Your task to perform on an android device: uninstall "Gmail" Image 0: 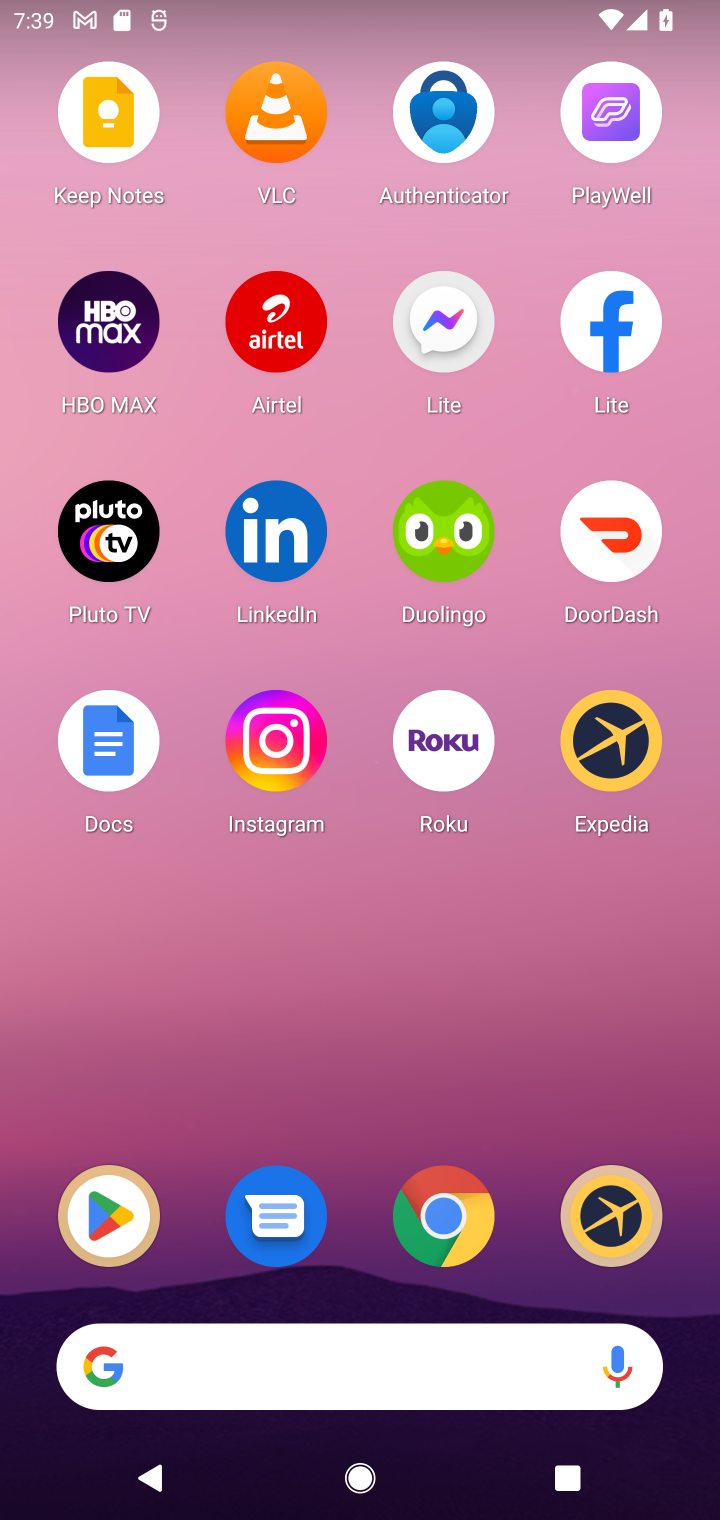
Step 0: press home button
Your task to perform on an android device: uninstall "Gmail" Image 1: 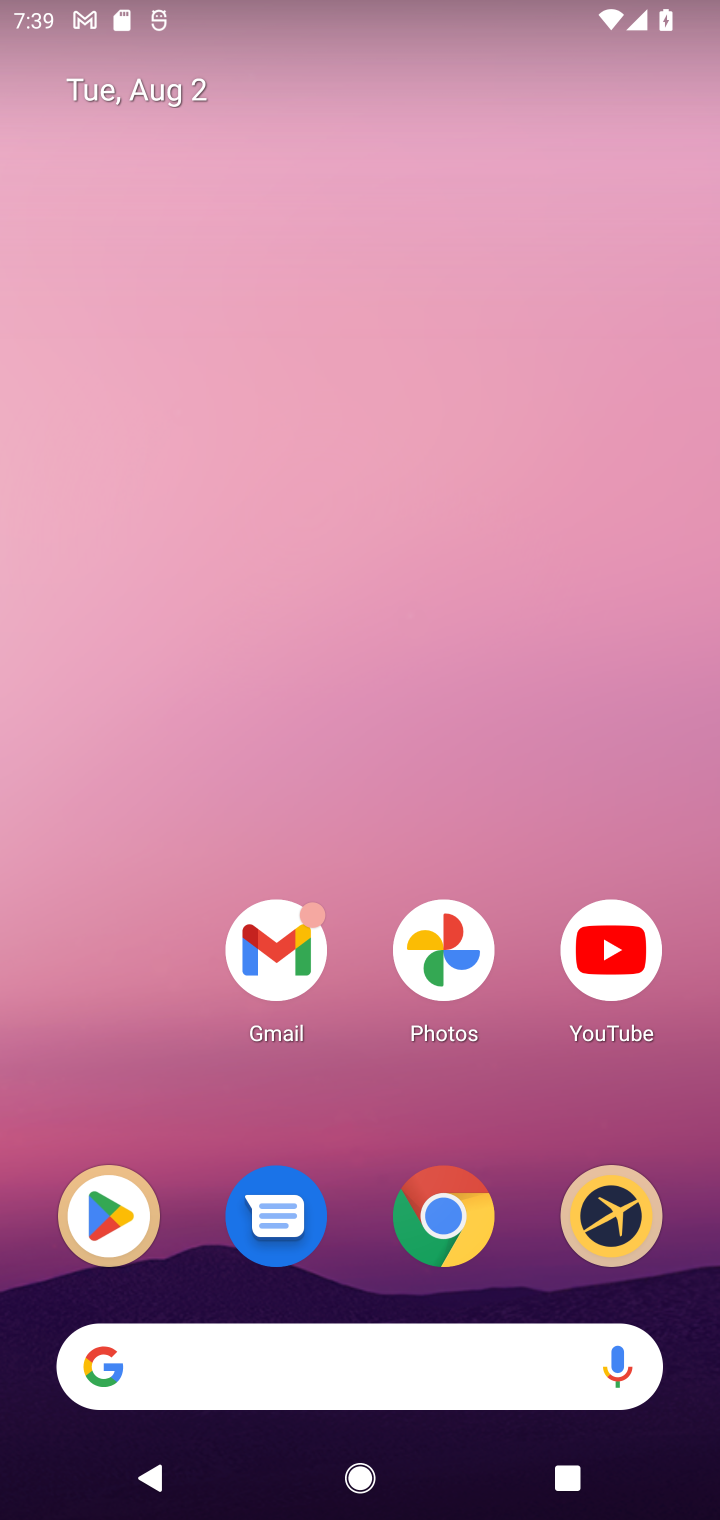
Step 1: click (93, 1222)
Your task to perform on an android device: uninstall "Gmail" Image 2: 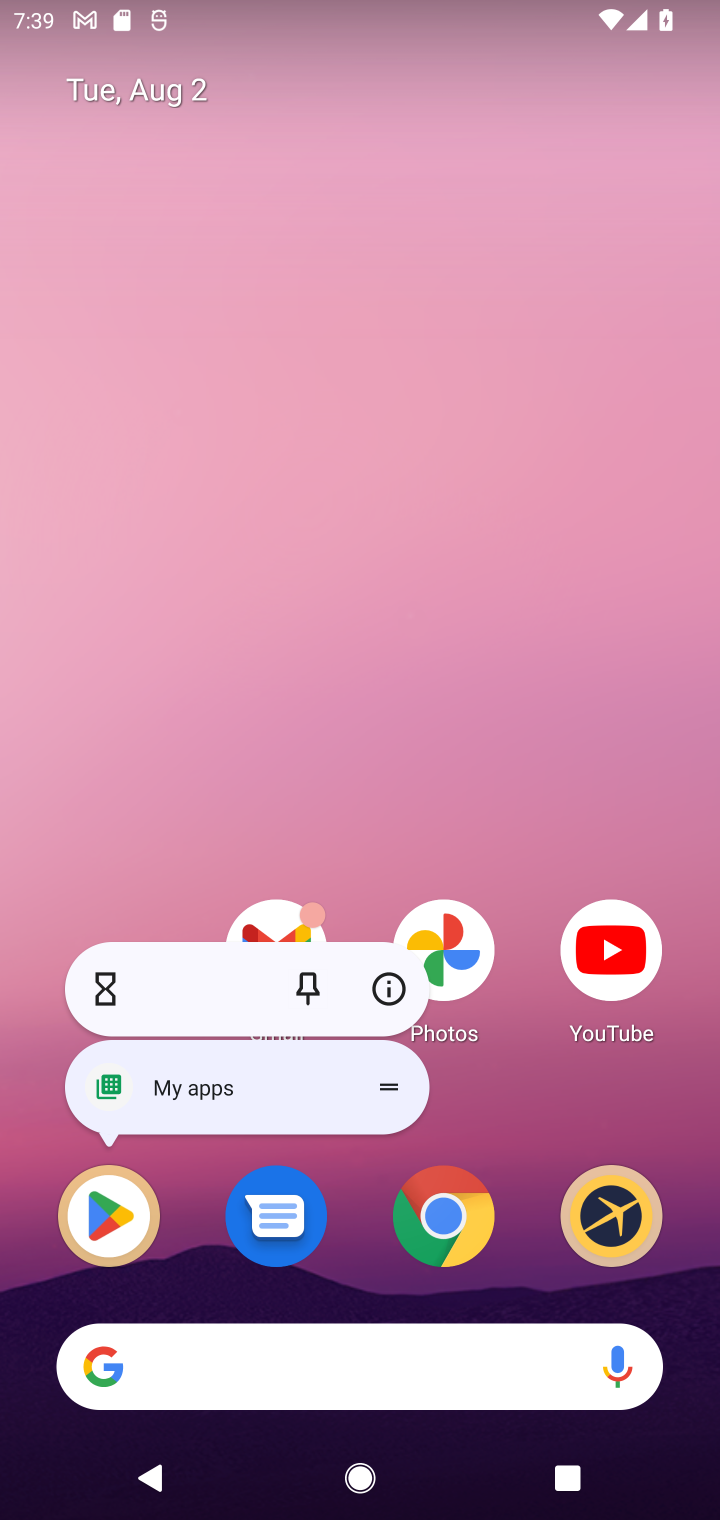
Step 2: click (109, 1211)
Your task to perform on an android device: uninstall "Gmail" Image 3: 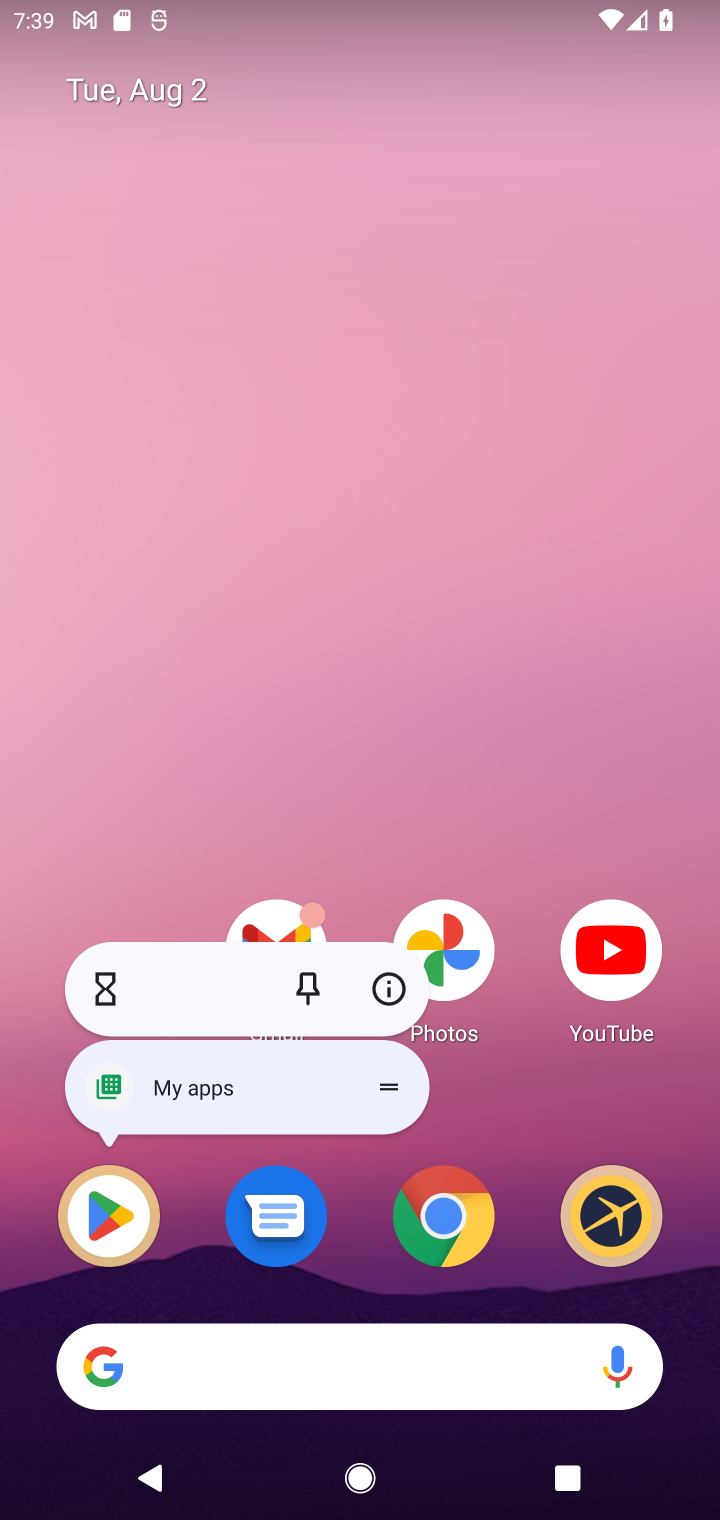
Step 3: click (109, 1211)
Your task to perform on an android device: uninstall "Gmail" Image 4: 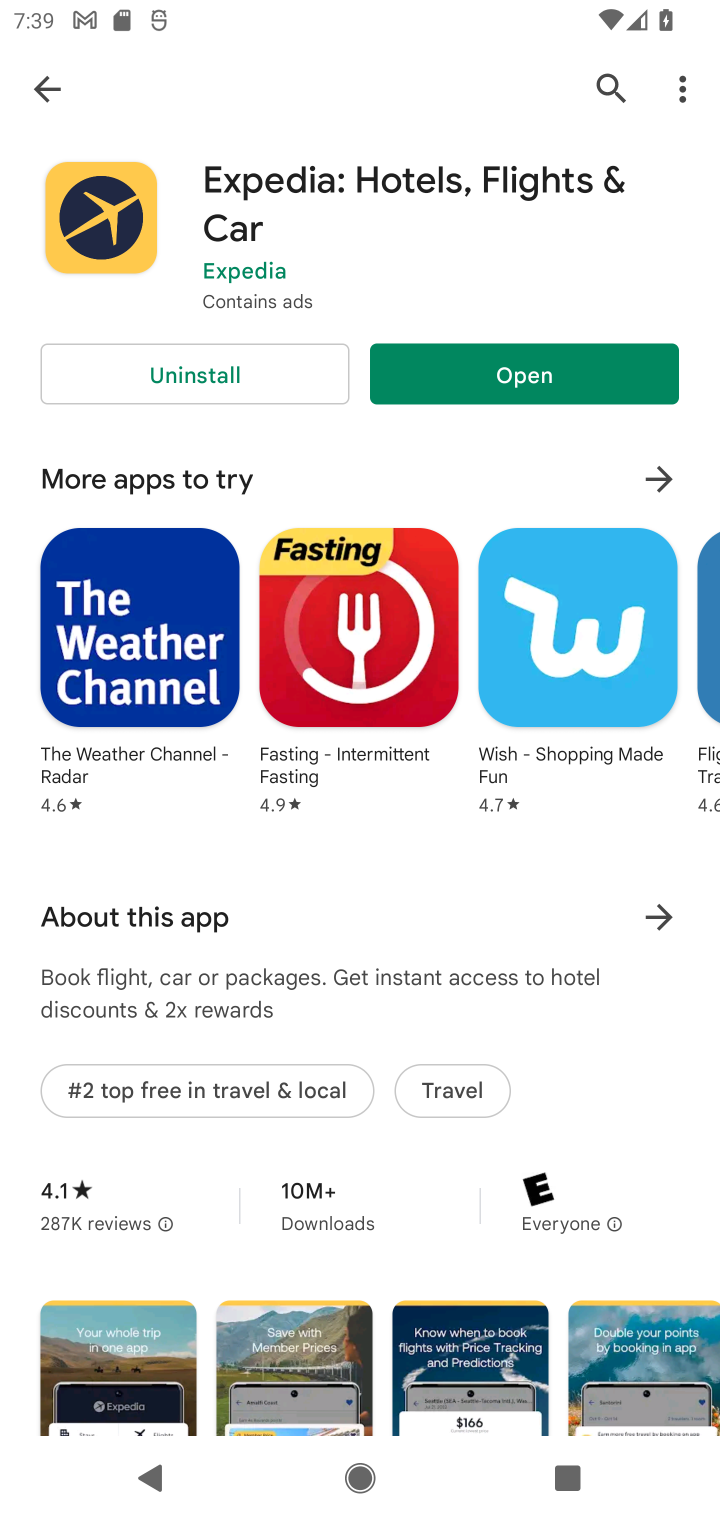
Step 4: click (613, 71)
Your task to perform on an android device: uninstall "Gmail" Image 5: 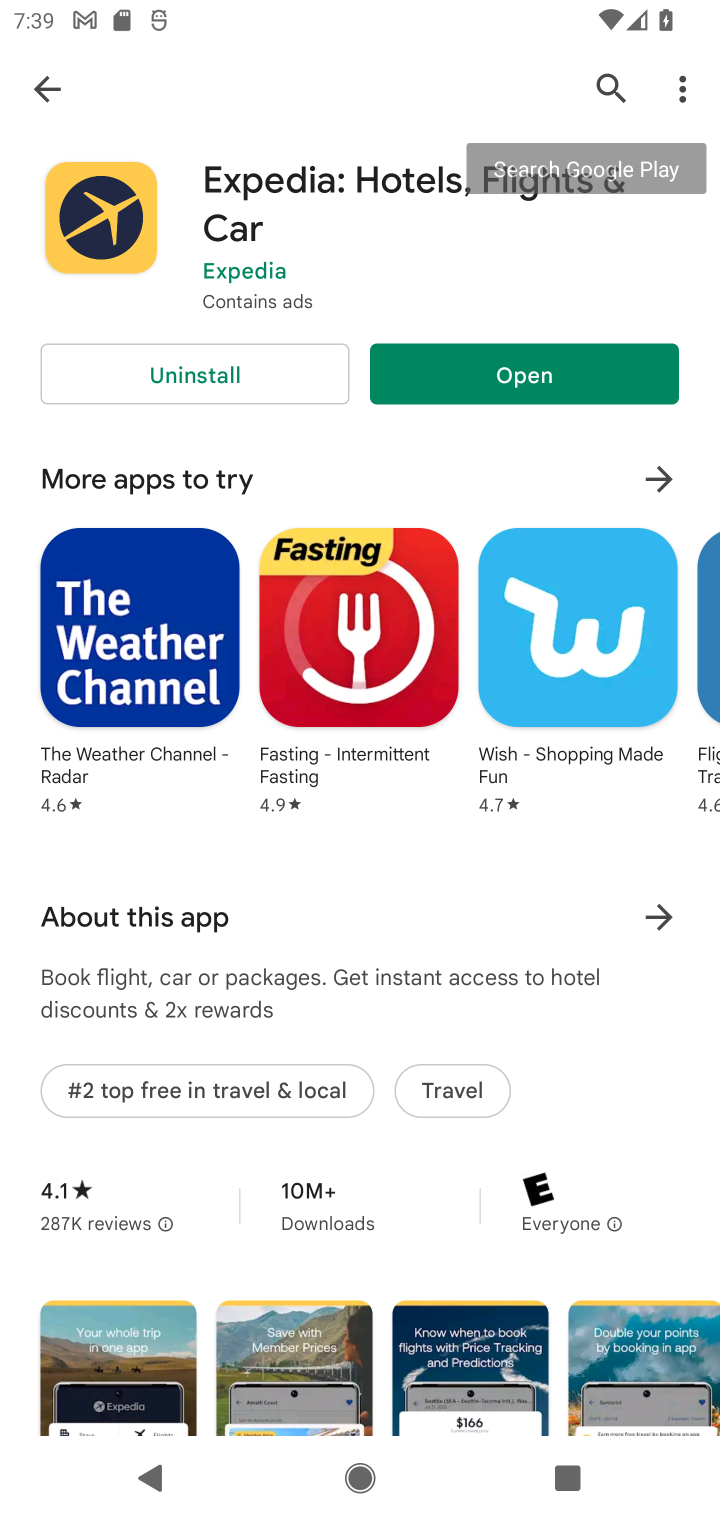
Step 5: click (604, 86)
Your task to perform on an android device: uninstall "Gmail" Image 6: 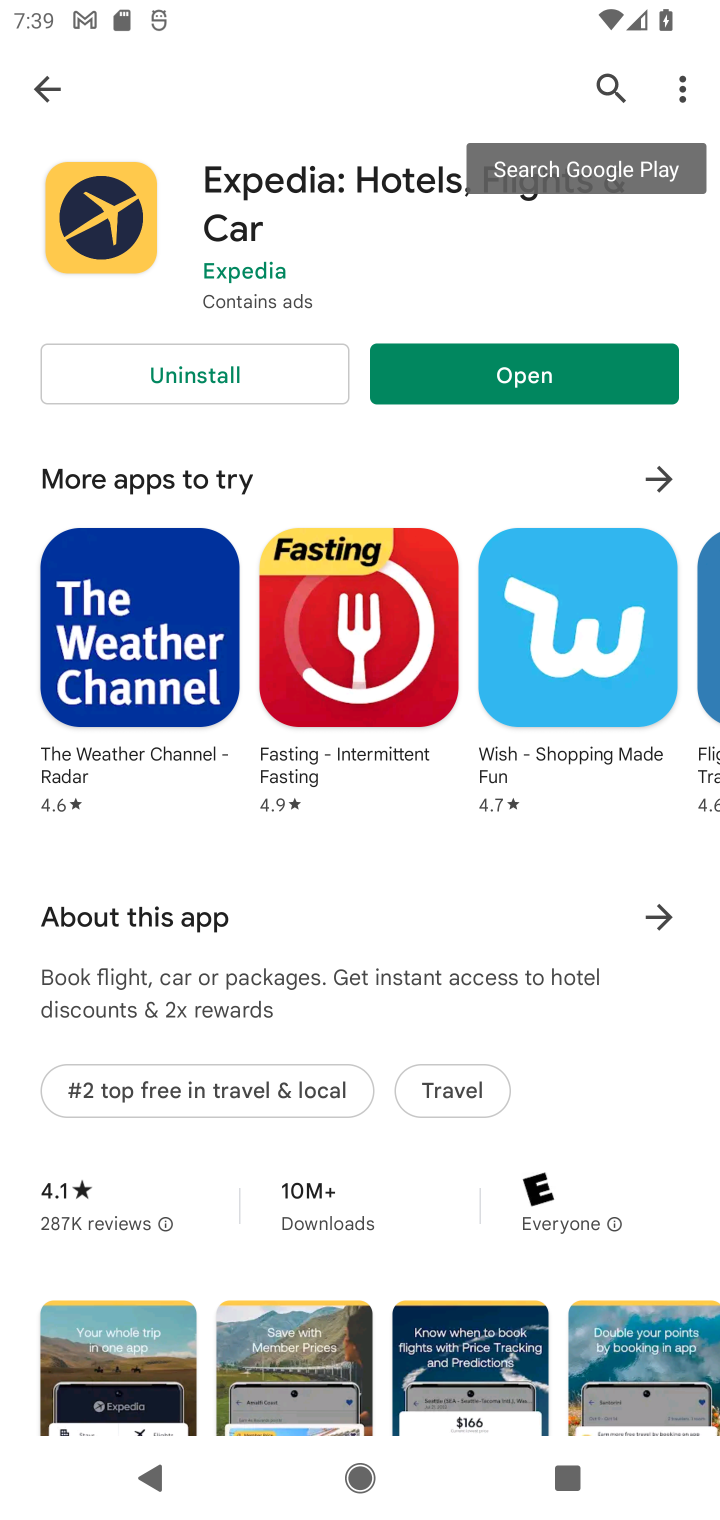
Step 6: click (54, 89)
Your task to perform on an android device: uninstall "Gmail" Image 7: 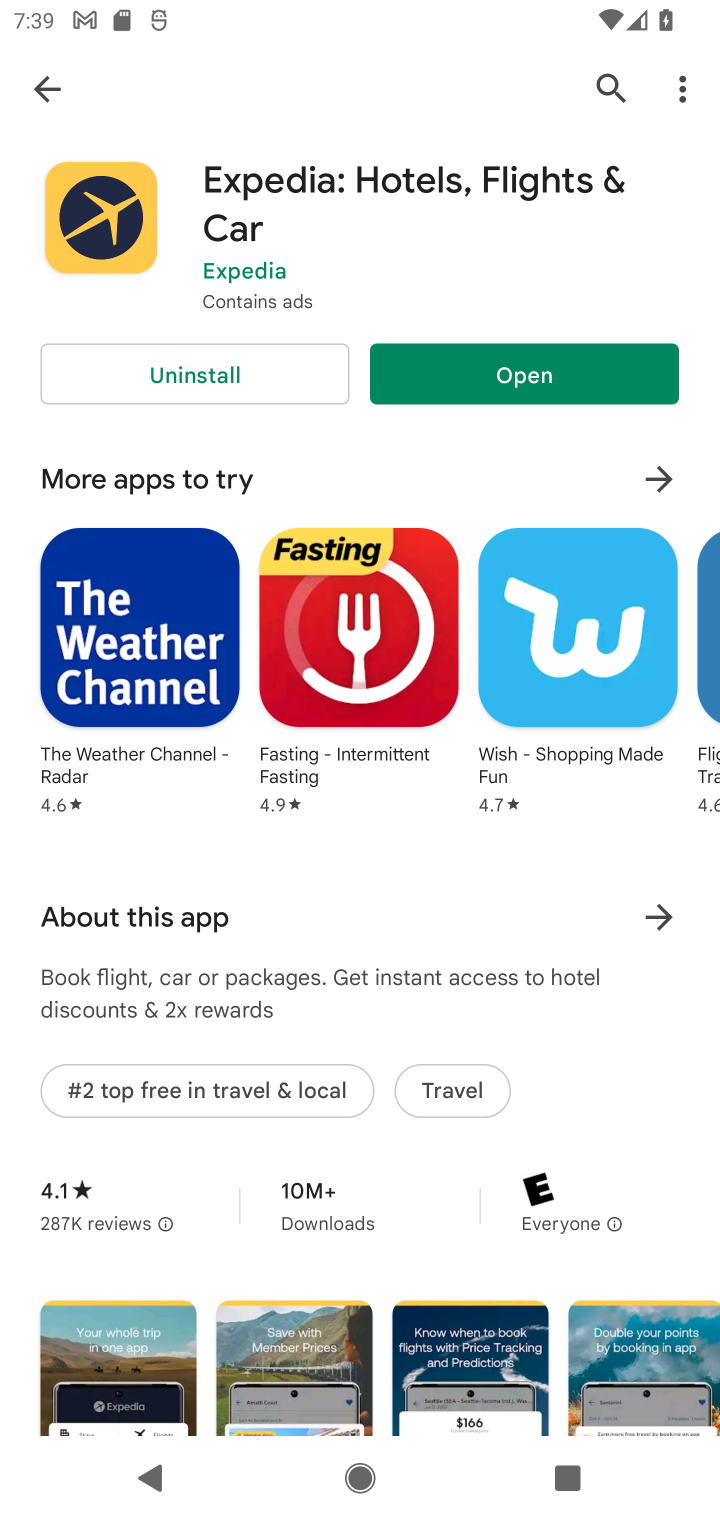
Step 7: click (609, 82)
Your task to perform on an android device: uninstall "Gmail" Image 8: 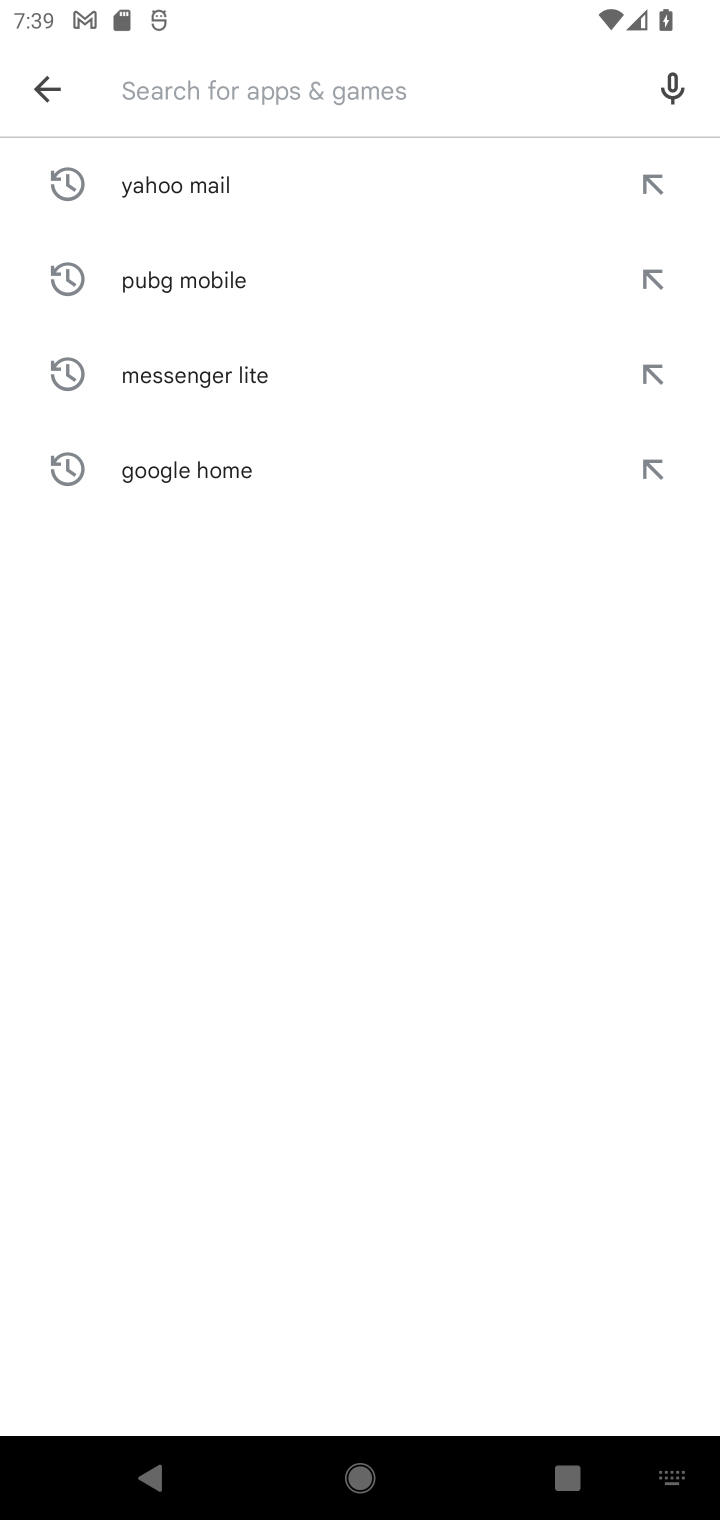
Step 8: type "Gmail"
Your task to perform on an android device: uninstall "Gmail" Image 9: 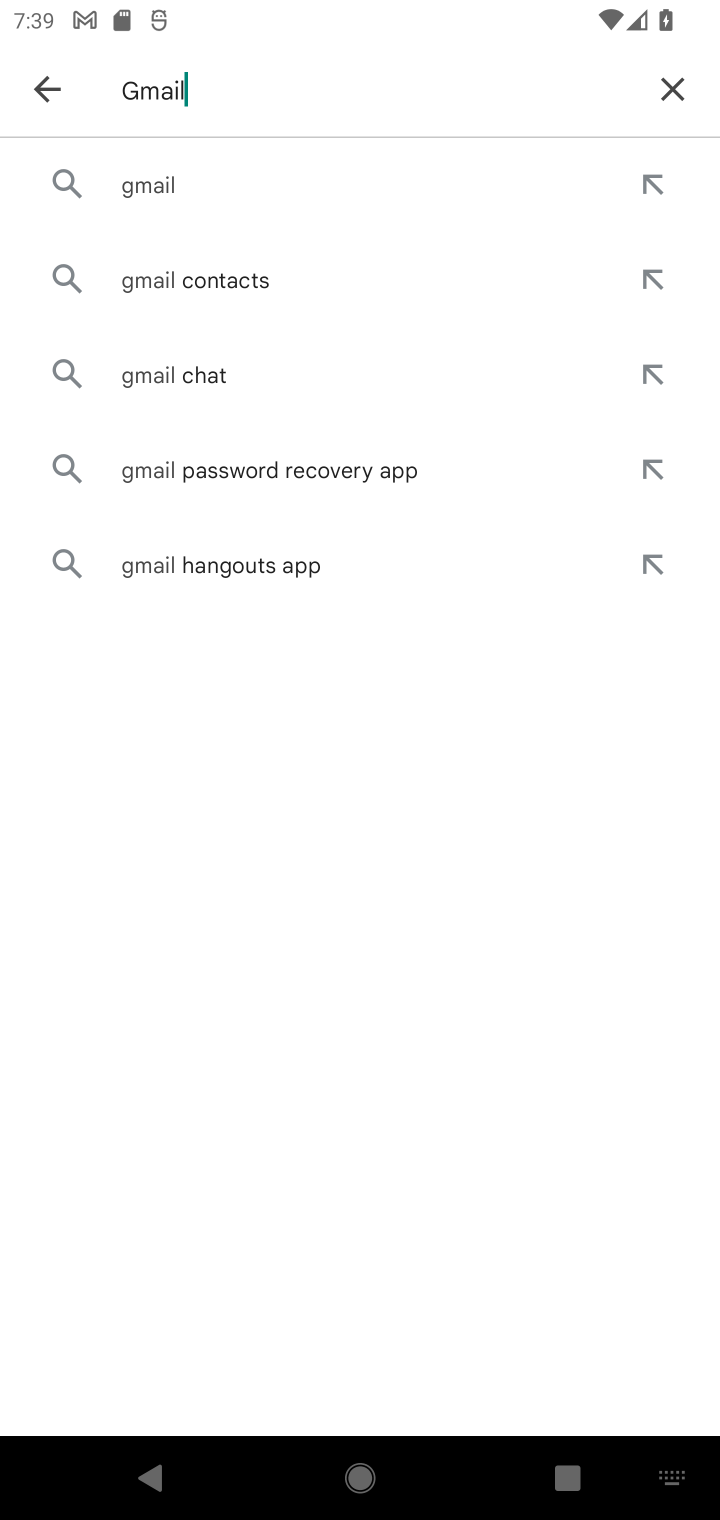
Step 9: click (183, 178)
Your task to perform on an android device: uninstall "Gmail" Image 10: 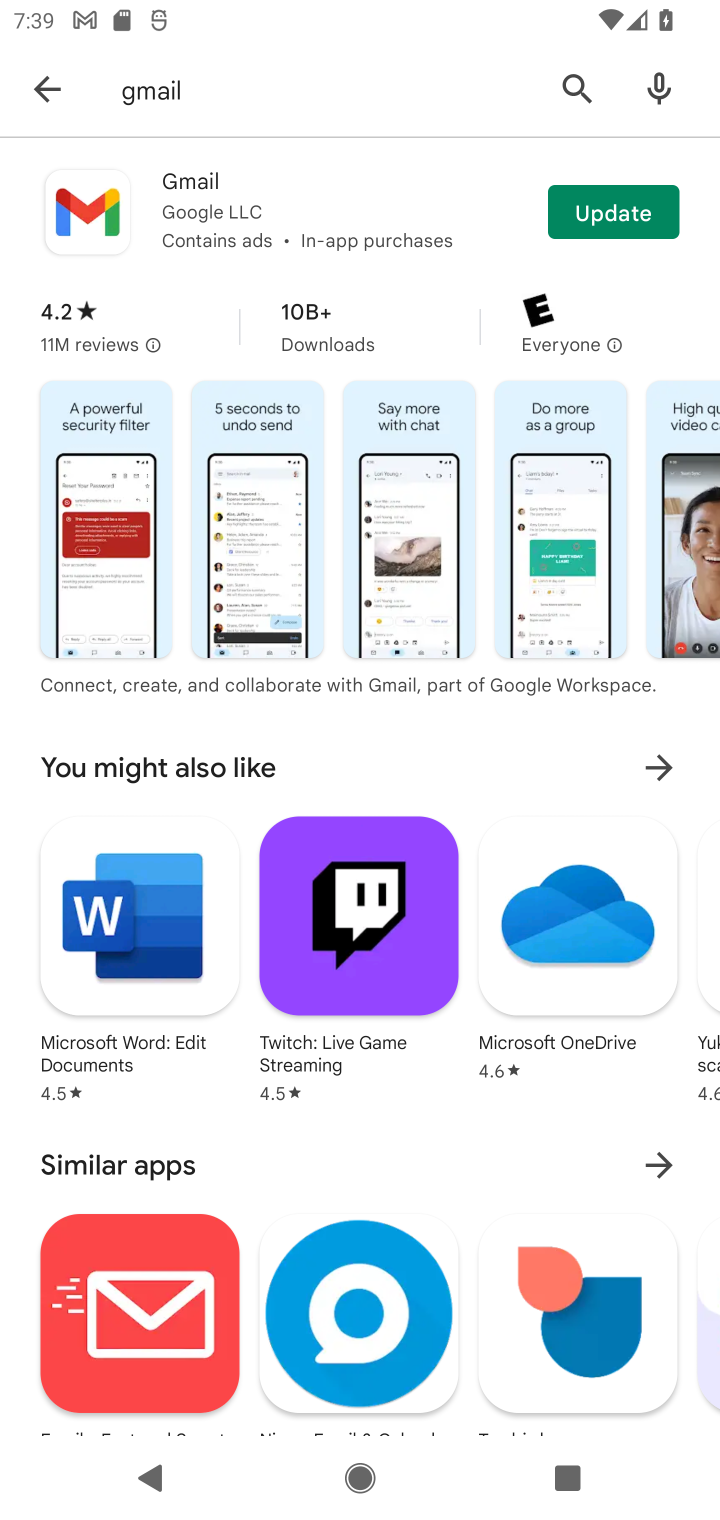
Step 10: click (216, 214)
Your task to perform on an android device: uninstall "Gmail" Image 11: 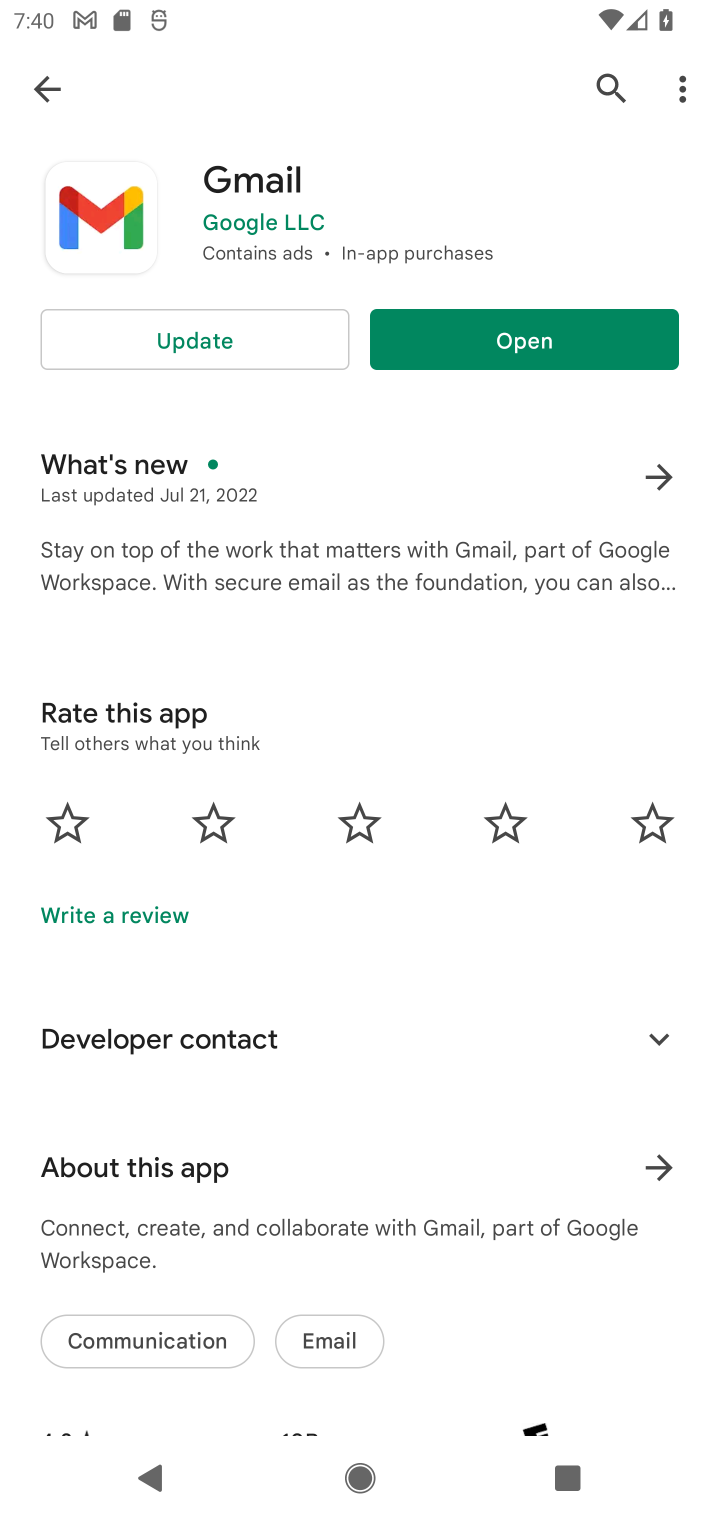
Step 11: task complete